Your task to perform on an android device: turn on location history Image 0: 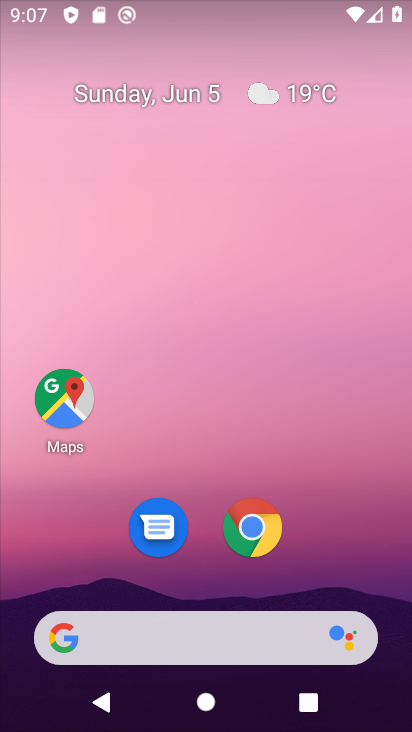
Step 0: drag from (173, 583) to (244, 16)
Your task to perform on an android device: turn on location history Image 1: 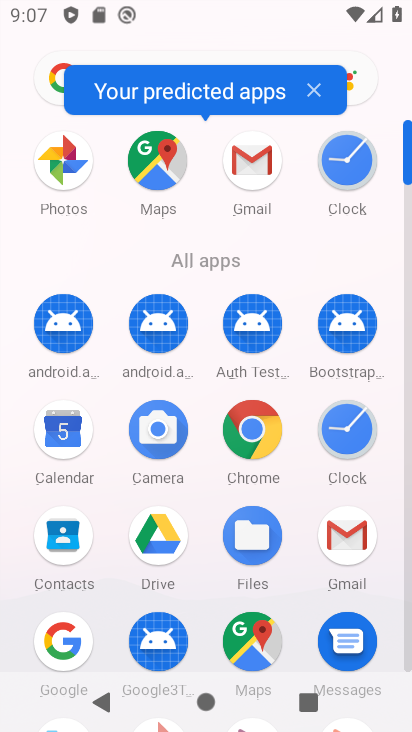
Step 1: drag from (218, 638) to (298, 32)
Your task to perform on an android device: turn on location history Image 2: 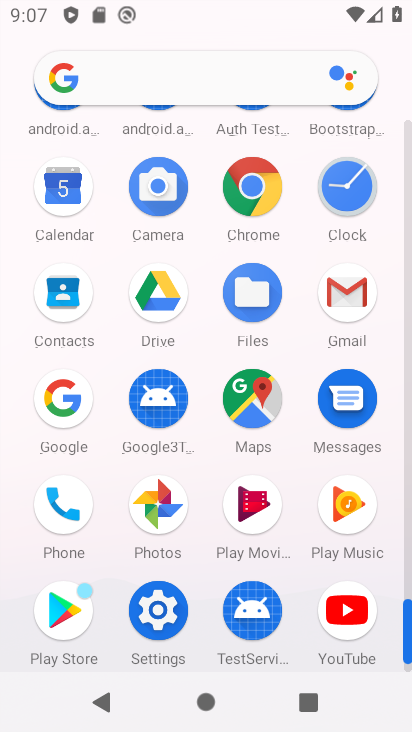
Step 2: click (163, 591)
Your task to perform on an android device: turn on location history Image 3: 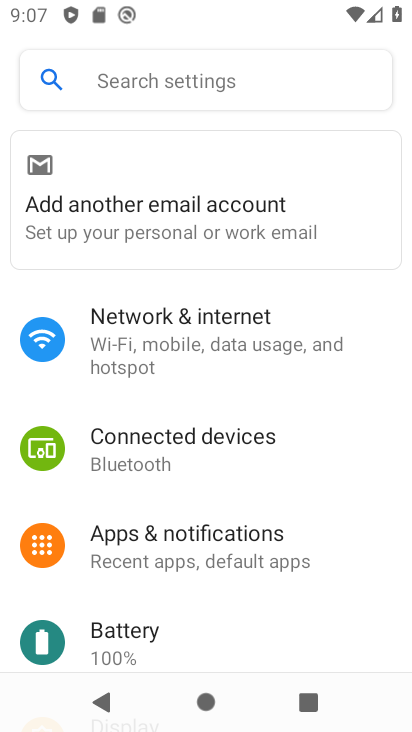
Step 3: drag from (184, 607) to (291, 102)
Your task to perform on an android device: turn on location history Image 4: 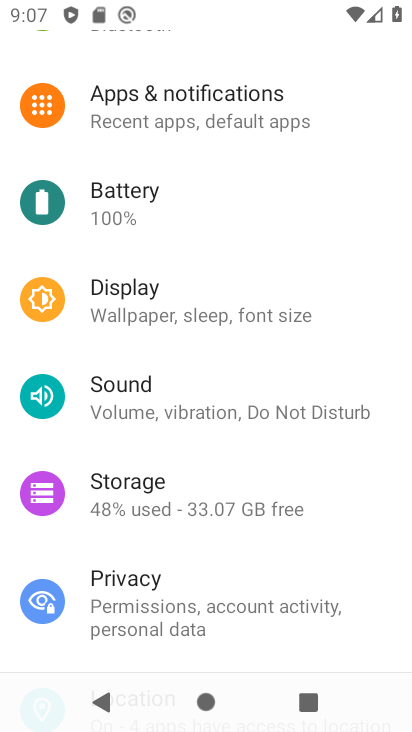
Step 4: drag from (185, 568) to (203, 59)
Your task to perform on an android device: turn on location history Image 5: 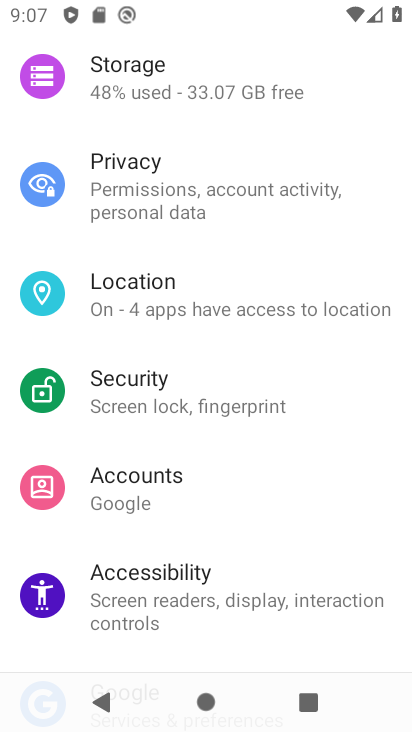
Step 5: click (183, 298)
Your task to perform on an android device: turn on location history Image 6: 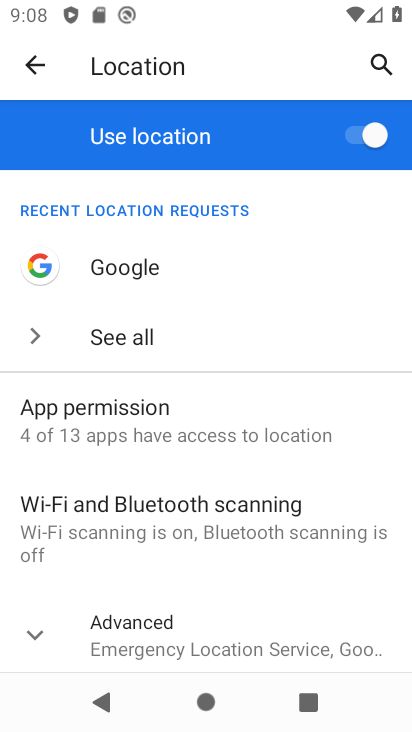
Step 6: drag from (200, 573) to (254, 190)
Your task to perform on an android device: turn on location history Image 7: 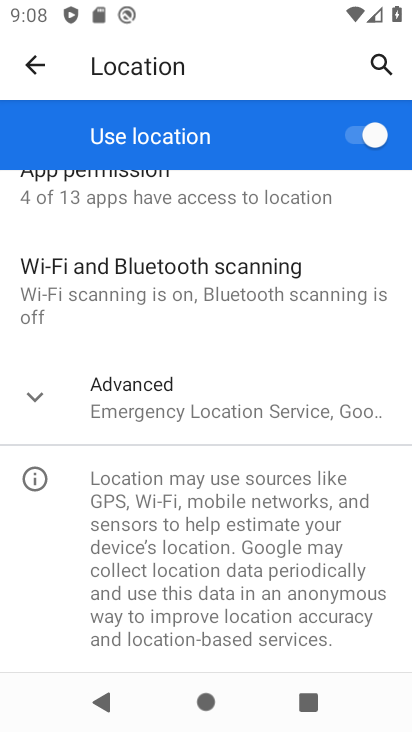
Step 7: click (198, 398)
Your task to perform on an android device: turn on location history Image 8: 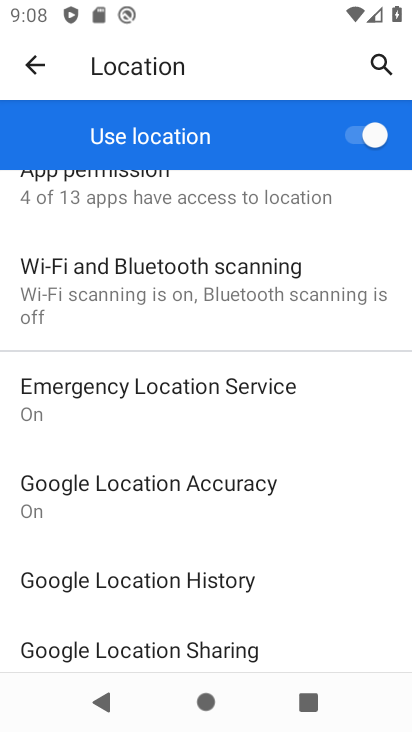
Step 8: click (160, 578)
Your task to perform on an android device: turn on location history Image 9: 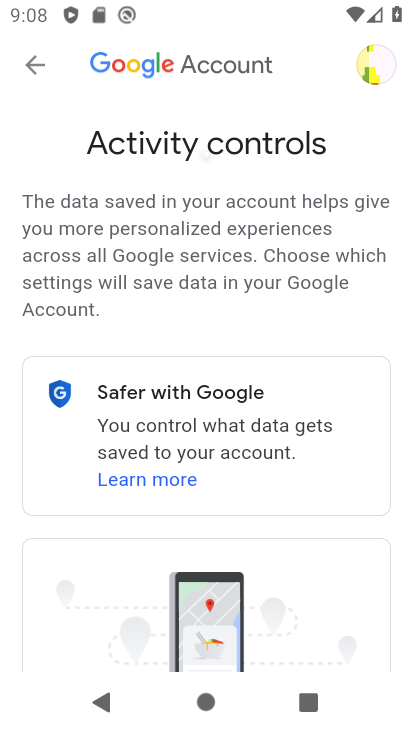
Step 9: task complete